Your task to perform on an android device: Open the calendar app, open the side menu, and click the "Day" option Image 0: 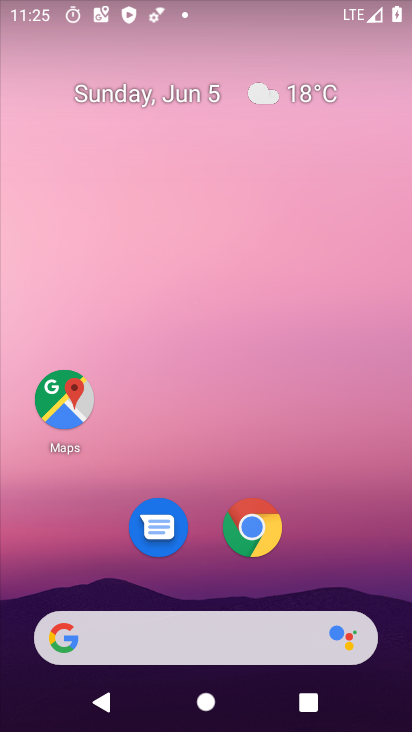
Step 0: click (129, 90)
Your task to perform on an android device: Open the calendar app, open the side menu, and click the "Day" option Image 1: 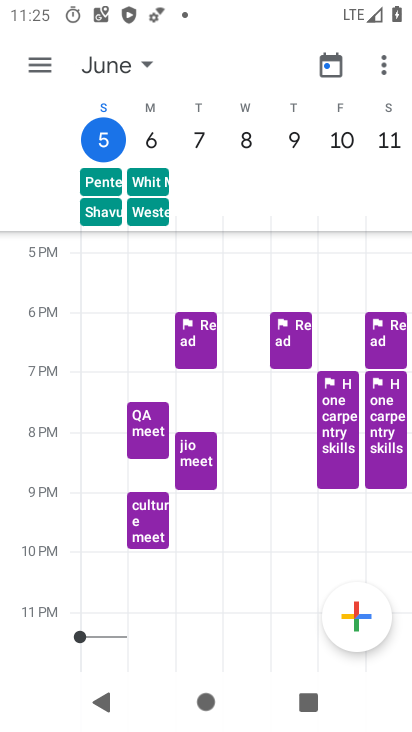
Step 1: click (32, 68)
Your task to perform on an android device: Open the calendar app, open the side menu, and click the "Day" option Image 2: 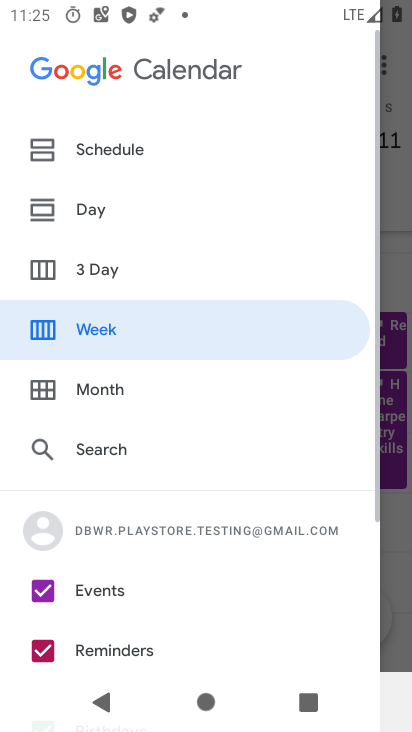
Step 2: click (125, 224)
Your task to perform on an android device: Open the calendar app, open the side menu, and click the "Day" option Image 3: 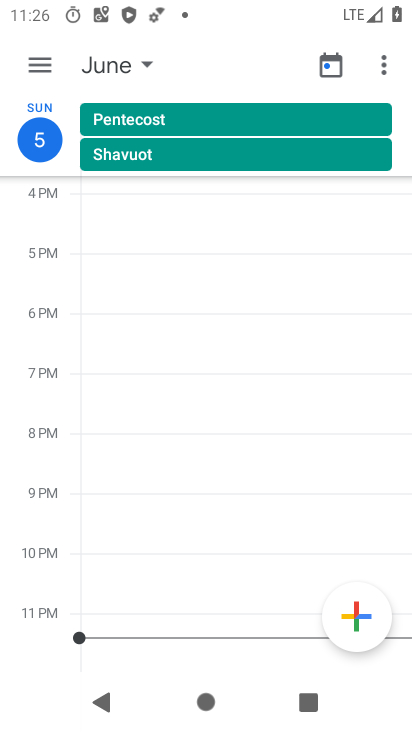
Step 3: task complete